Your task to perform on an android device: turn pop-ups off in chrome Image 0: 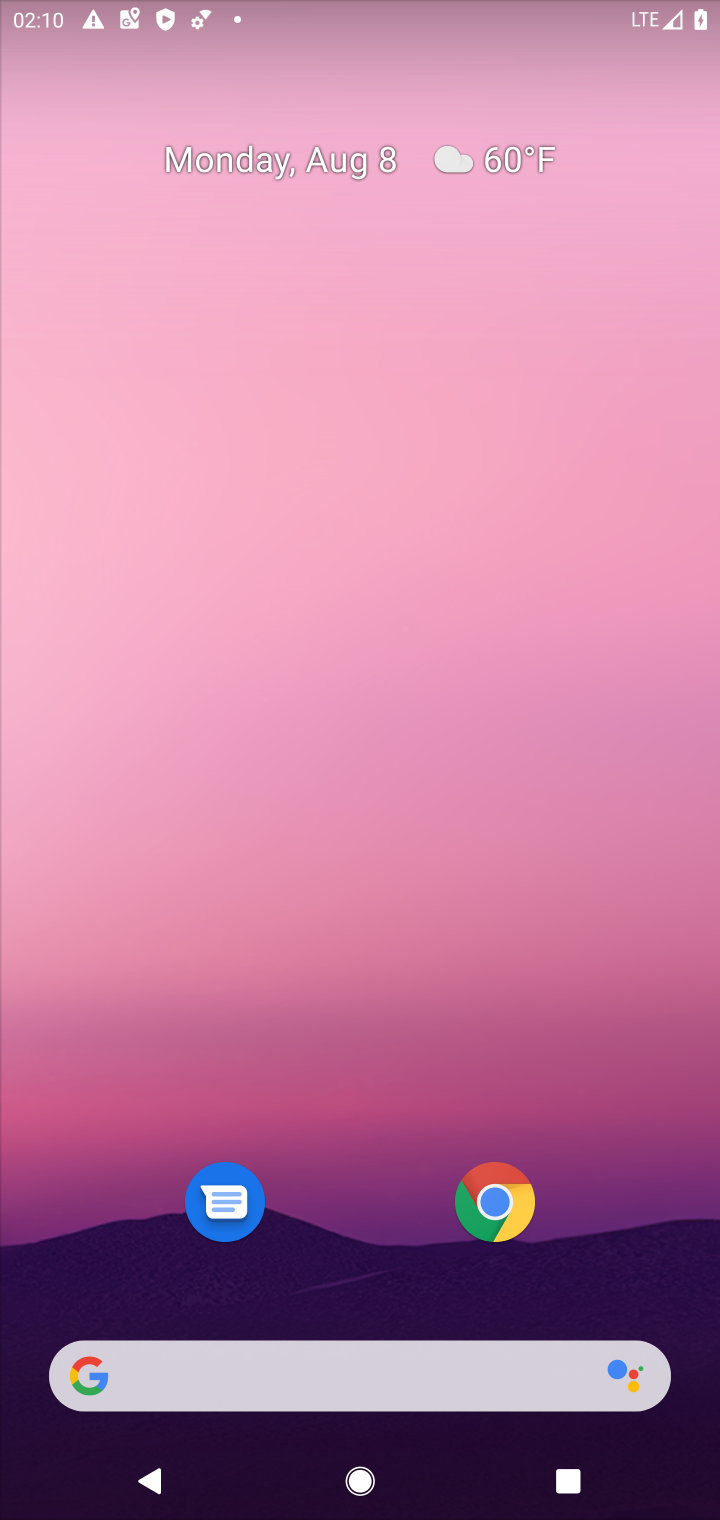
Step 0: press home button
Your task to perform on an android device: turn pop-ups off in chrome Image 1: 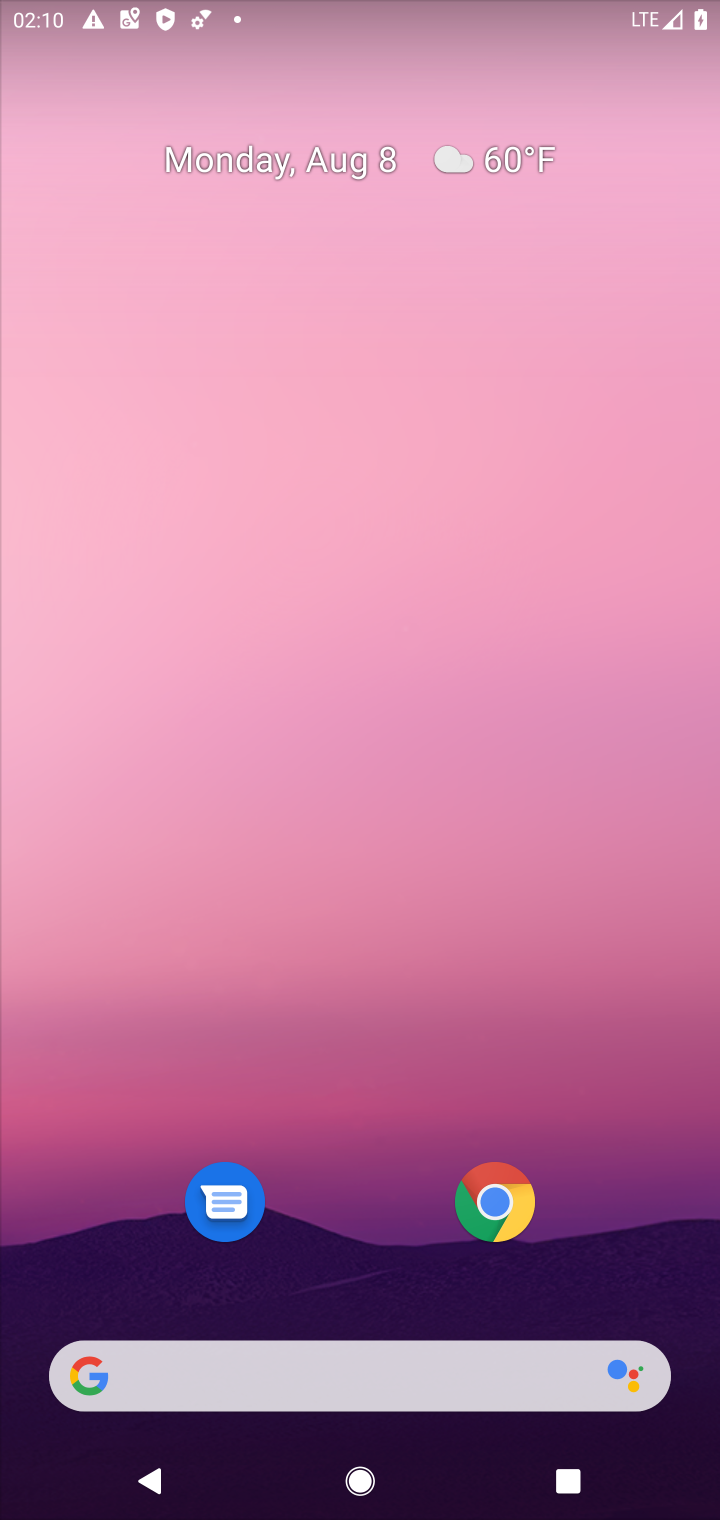
Step 1: click (493, 1192)
Your task to perform on an android device: turn pop-ups off in chrome Image 2: 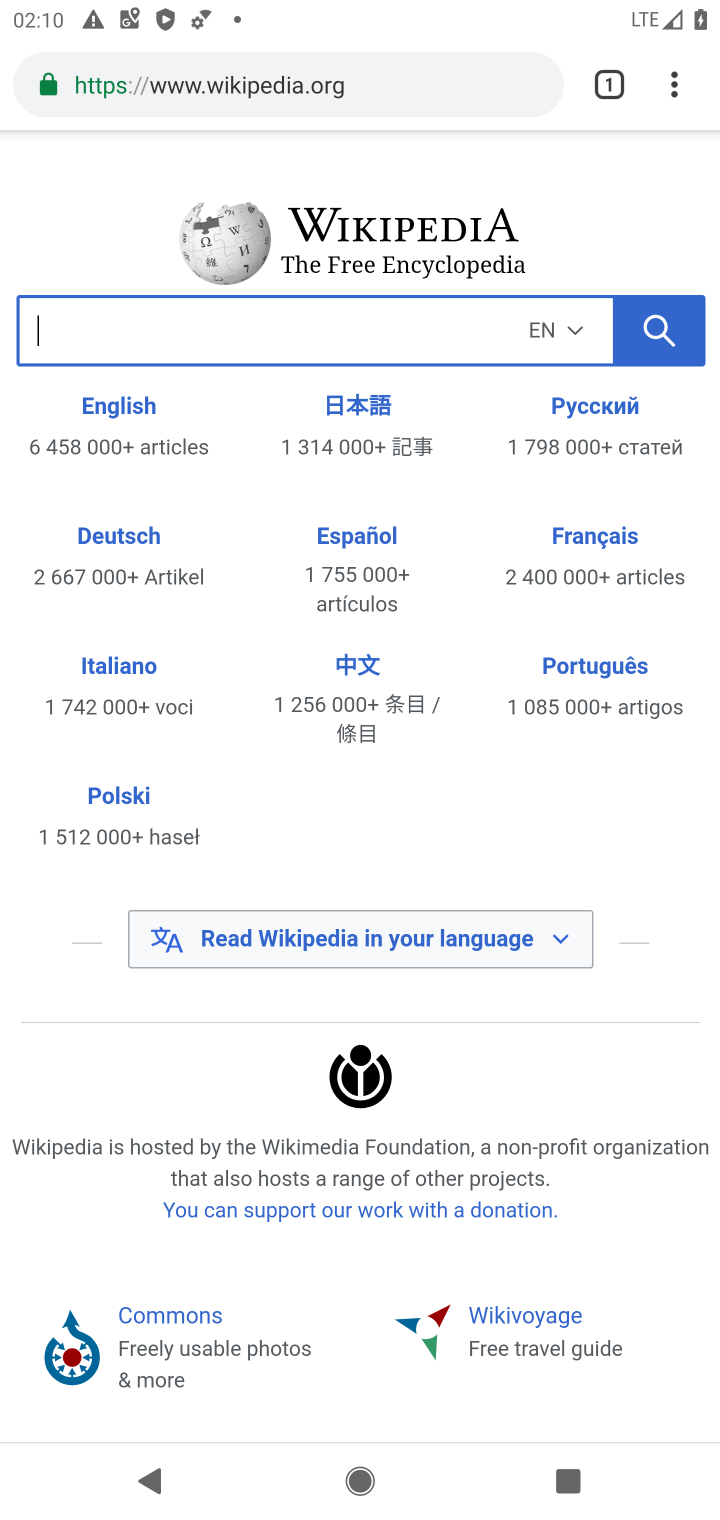
Step 2: click (672, 72)
Your task to perform on an android device: turn pop-ups off in chrome Image 3: 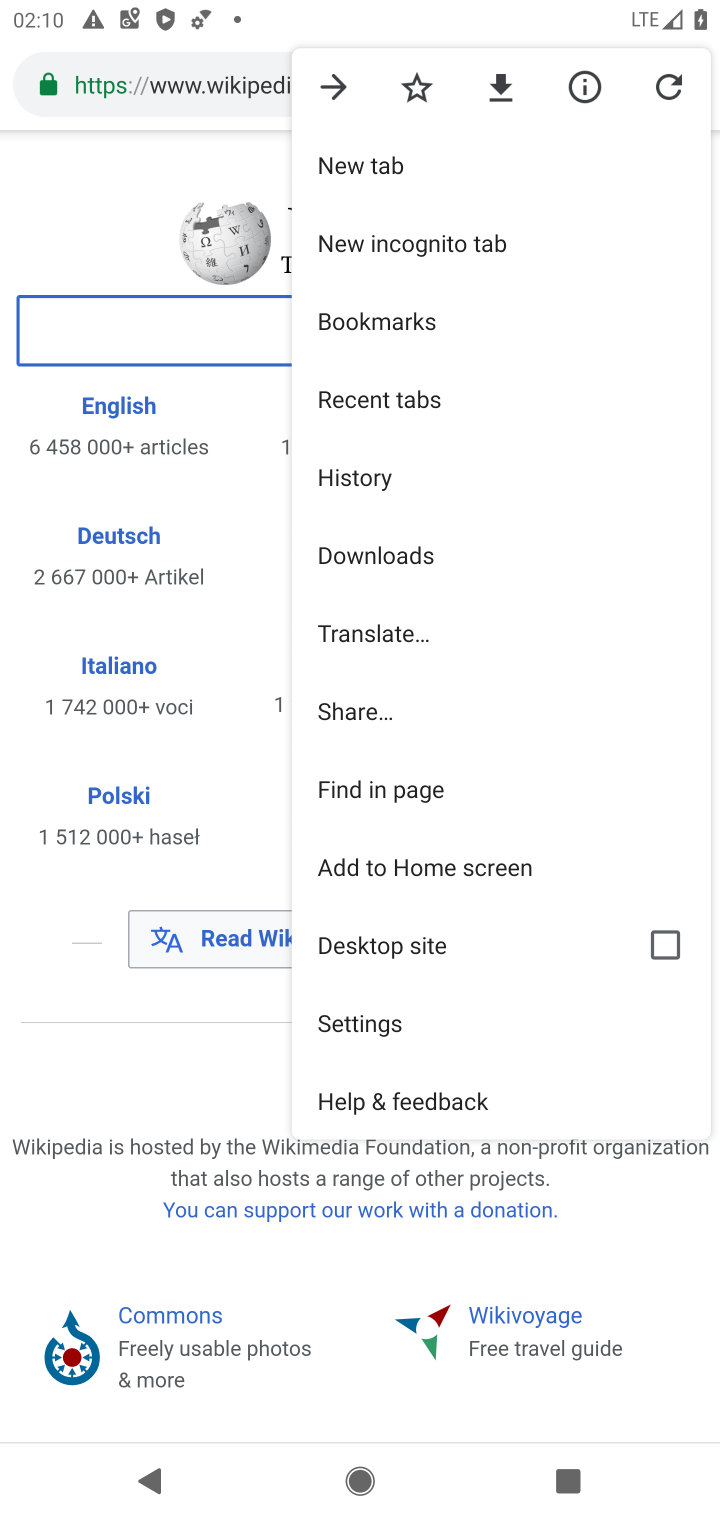
Step 3: click (352, 1025)
Your task to perform on an android device: turn pop-ups off in chrome Image 4: 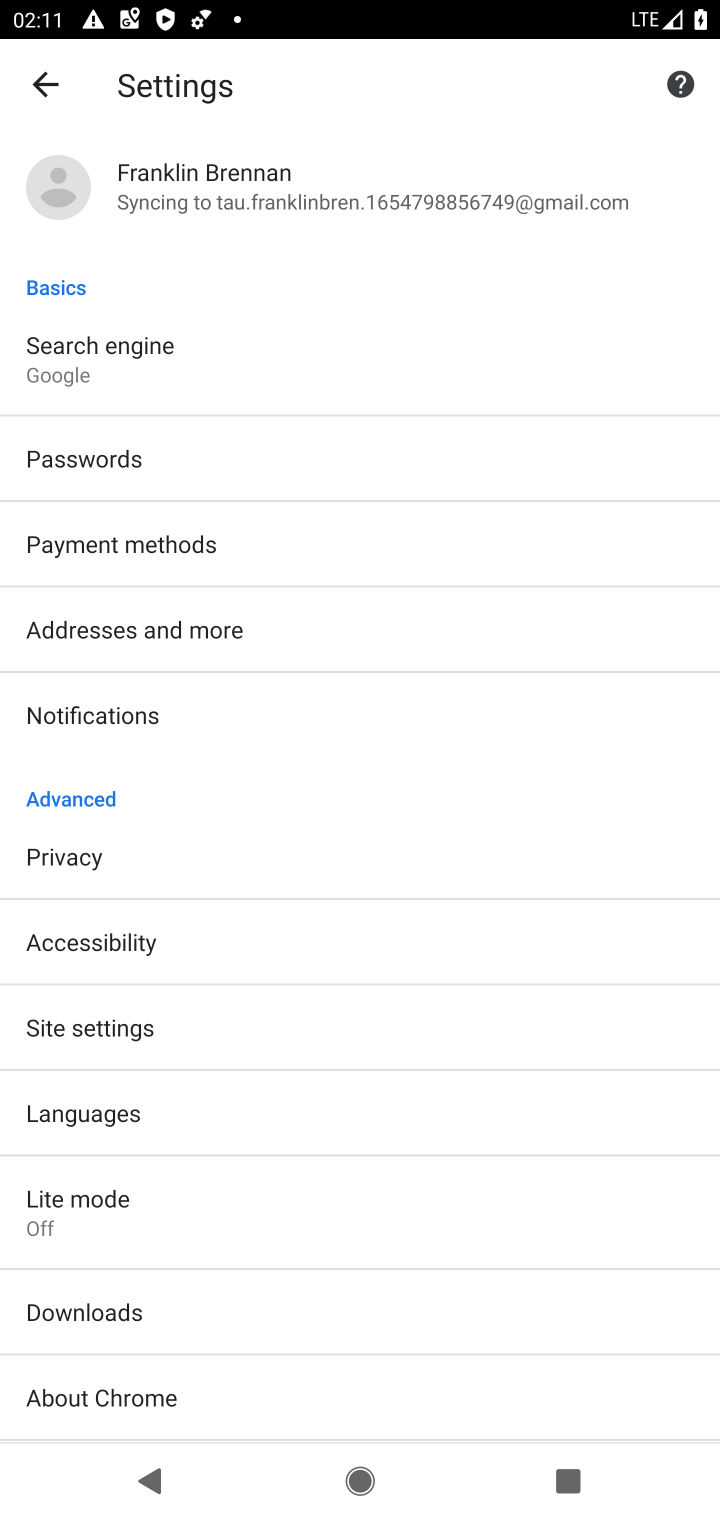
Step 4: click (101, 1028)
Your task to perform on an android device: turn pop-ups off in chrome Image 5: 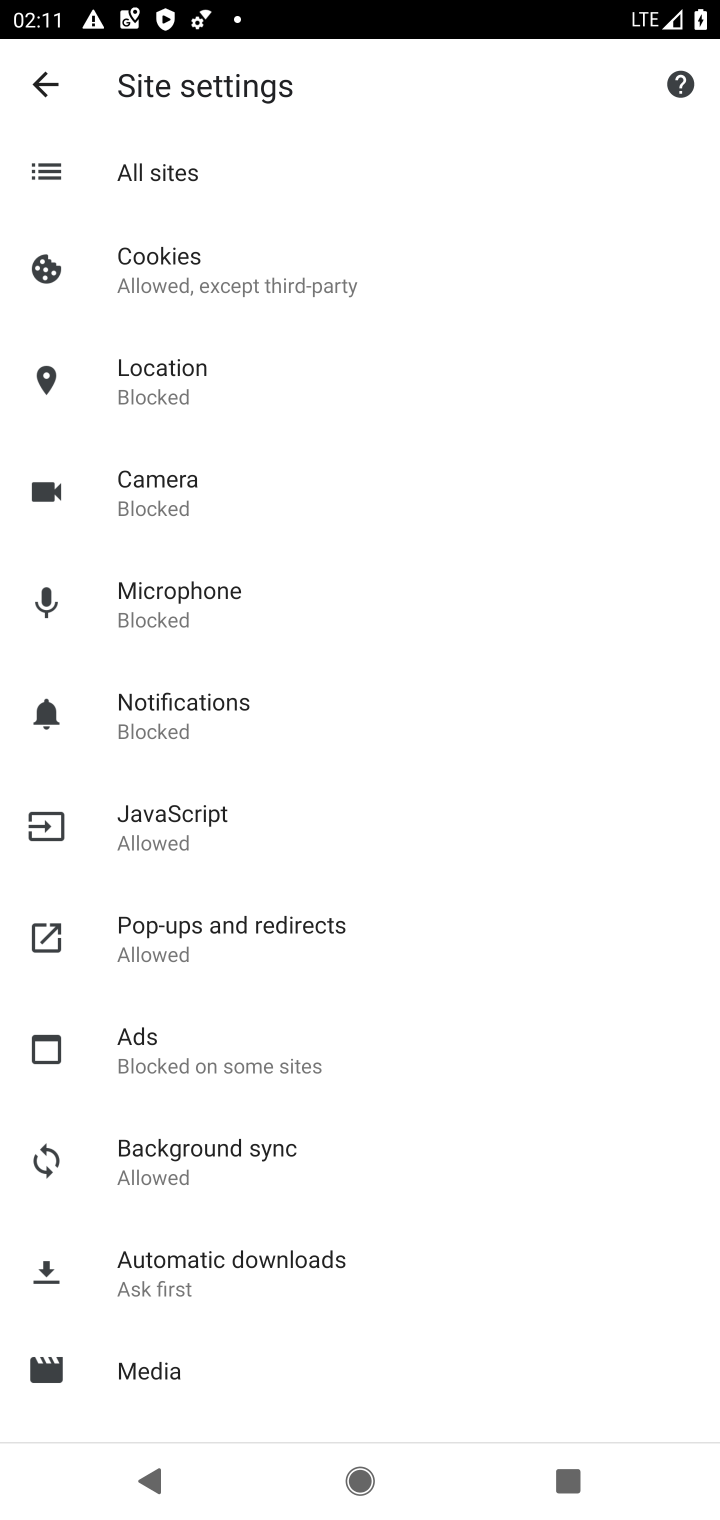
Step 5: click (182, 931)
Your task to perform on an android device: turn pop-ups off in chrome Image 6: 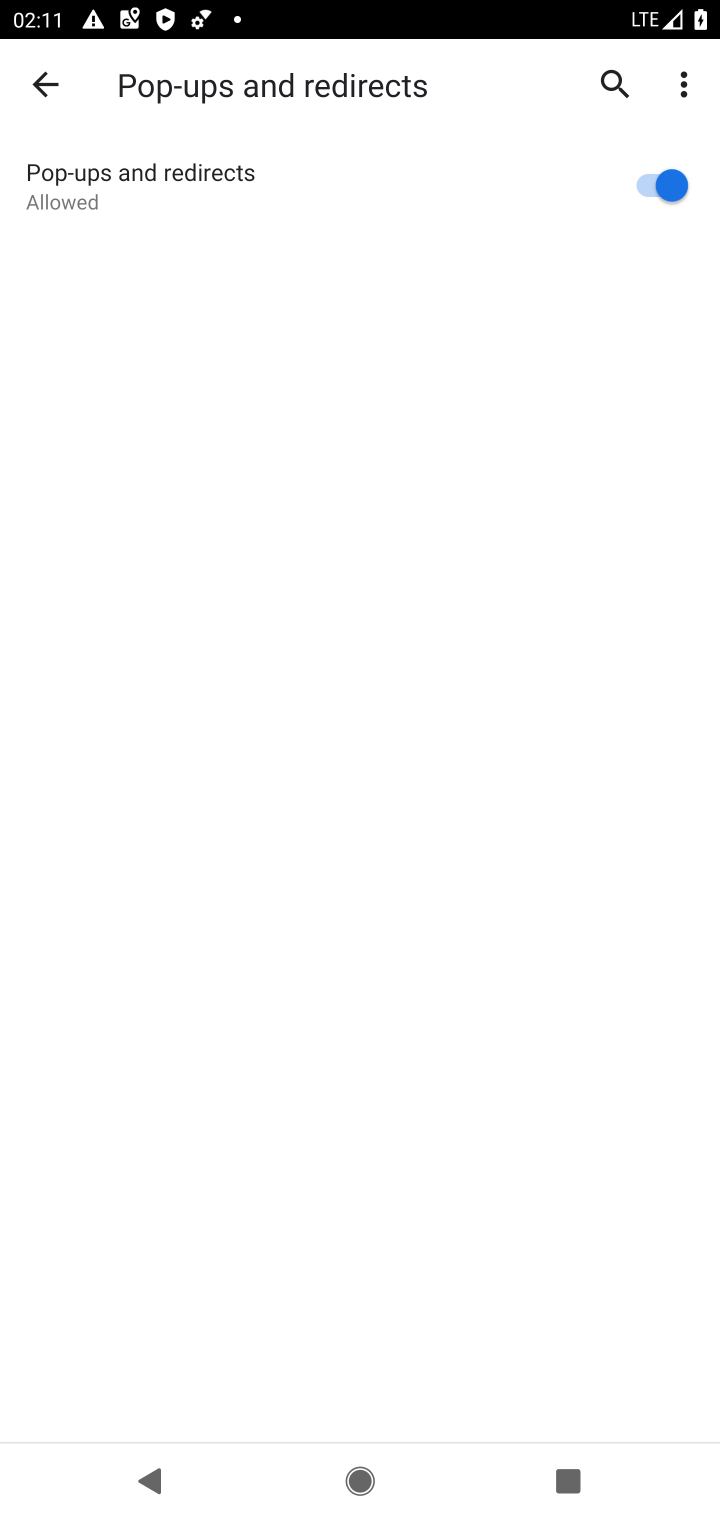
Step 6: click (636, 199)
Your task to perform on an android device: turn pop-ups off in chrome Image 7: 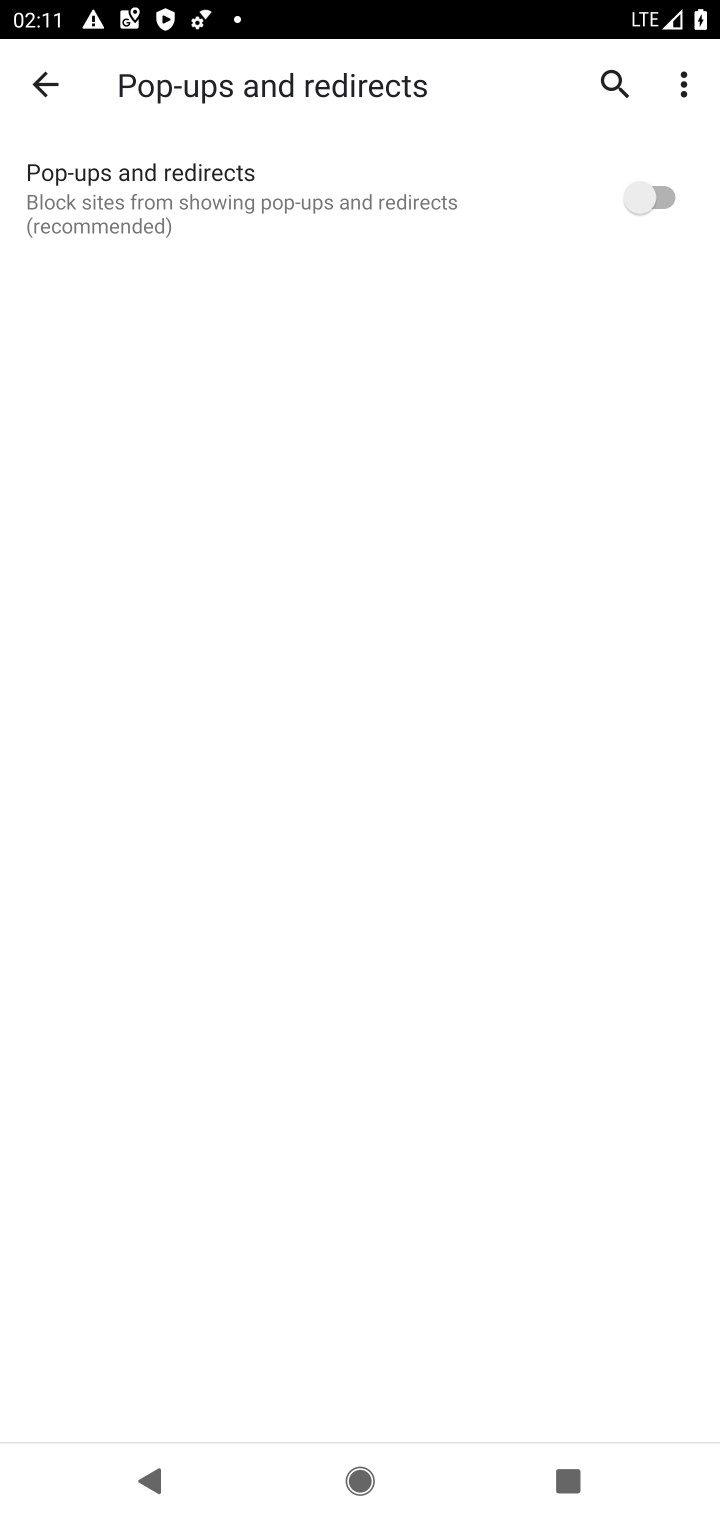
Step 7: task complete